Your task to perform on an android device: Go to calendar. Show me events next week Image 0: 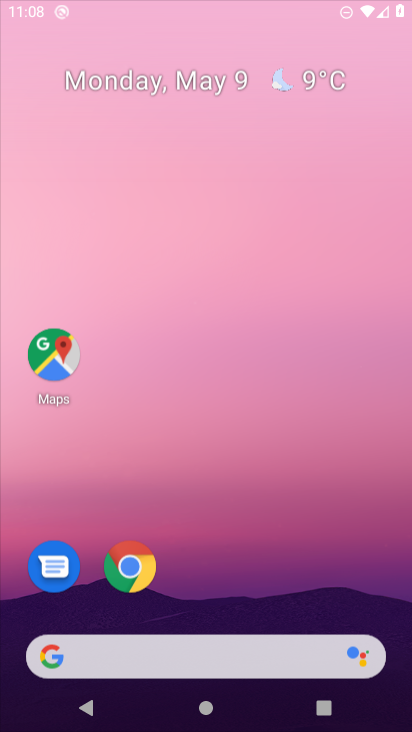
Step 0: click (228, 28)
Your task to perform on an android device: Go to calendar. Show me events next week Image 1: 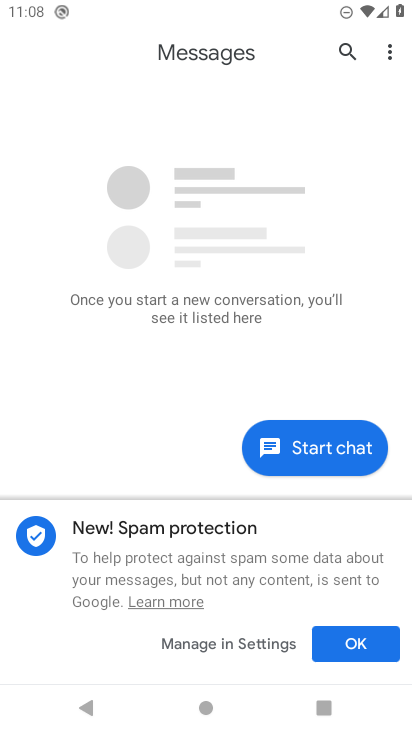
Step 1: press home button
Your task to perform on an android device: Go to calendar. Show me events next week Image 2: 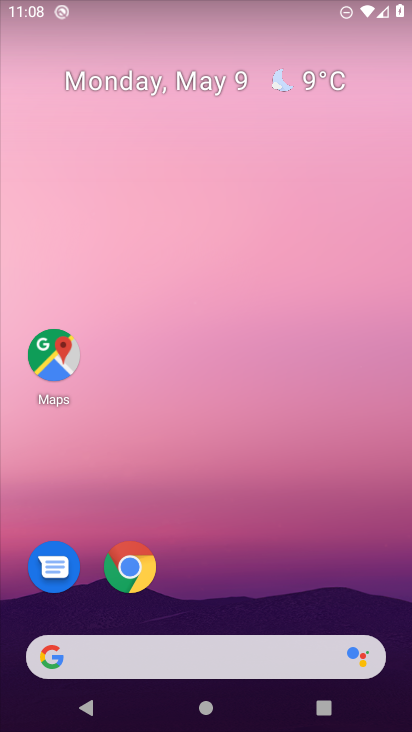
Step 2: drag from (217, 605) to (216, 83)
Your task to perform on an android device: Go to calendar. Show me events next week Image 3: 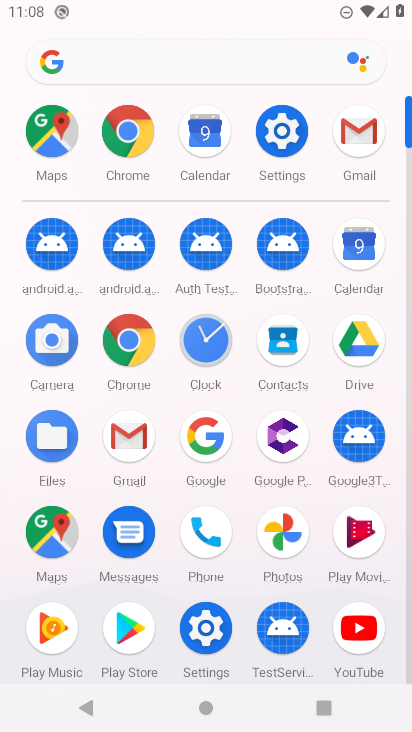
Step 3: click (357, 242)
Your task to perform on an android device: Go to calendar. Show me events next week Image 4: 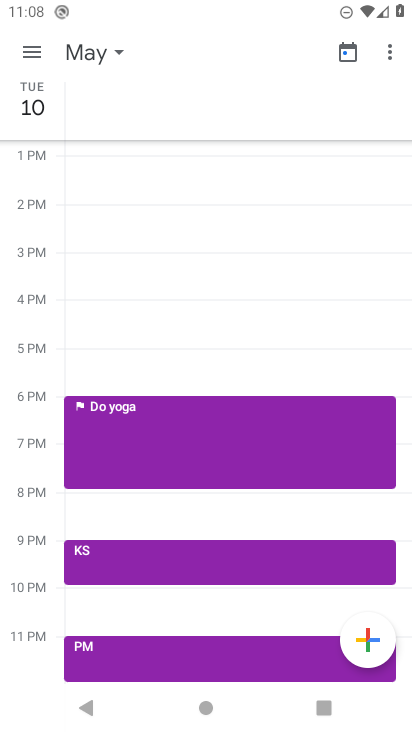
Step 4: click (27, 49)
Your task to perform on an android device: Go to calendar. Show me events next week Image 5: 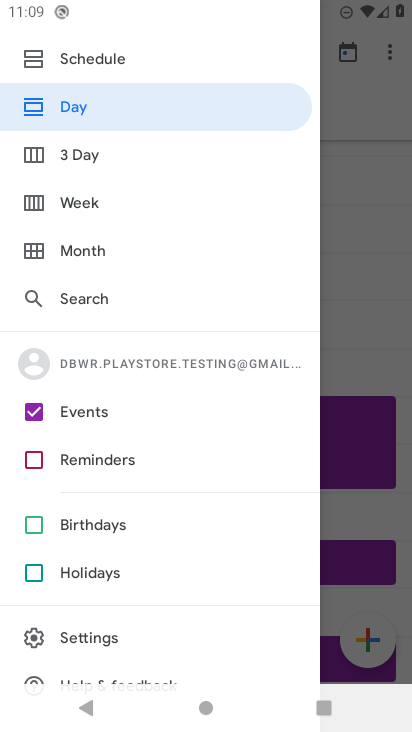
Step 5: drag from (102, 151) to (128, 546)
Your task to perform on an android device: Go to calendar. Show me events next week Image 6: 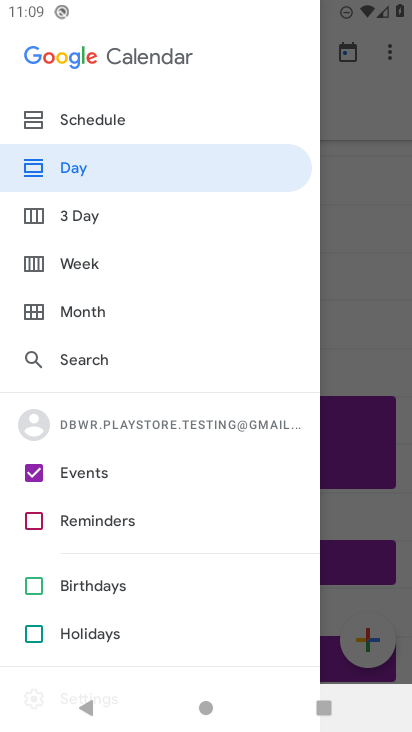
Step 6: click (51, 261)
Your task to perform on an android device: Go to calendar. Show me events next week Image 7: 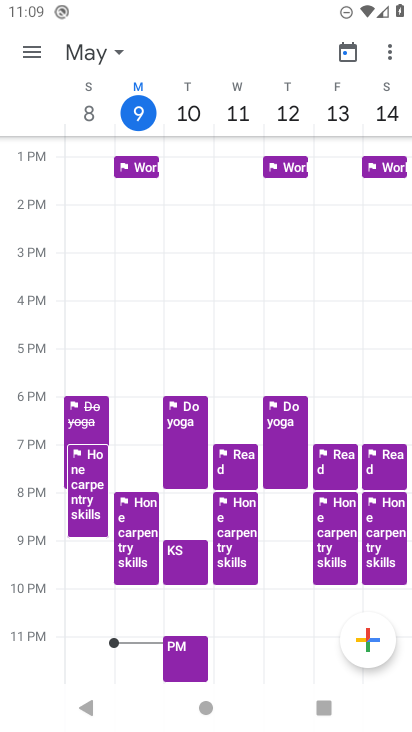
Step 7: drag from (392, 109) to (118, 116)
Your task to perform on an android device: Go to calendar. Show me events next week Image 8: 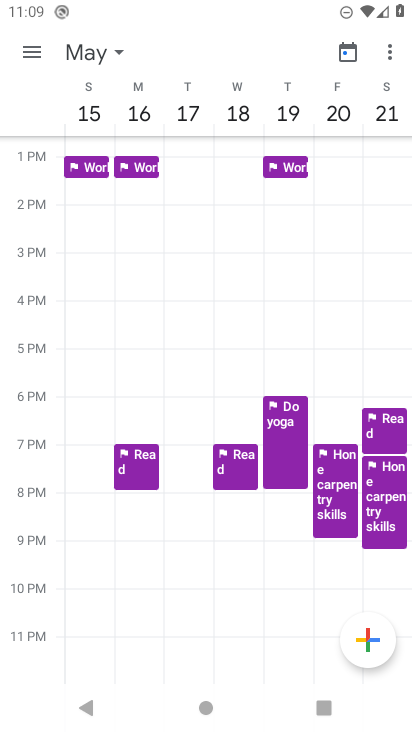
Step 8: click (87, 111)
Your task to perform on an android device: Go to calendar. Show me events next week Image 9: 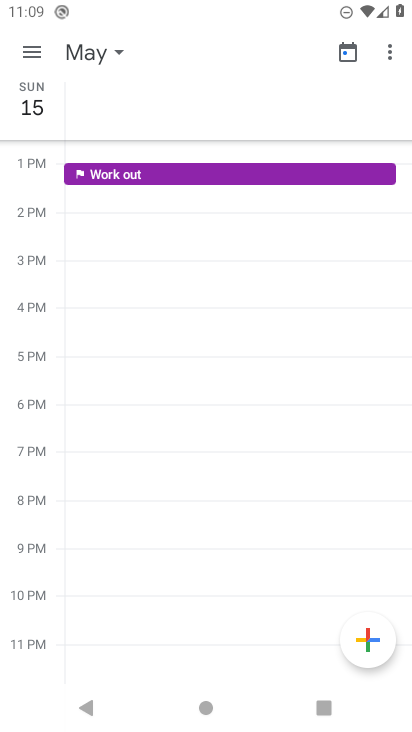
Step 9: click (44, 119)
Your task to perform on an android device: Go to calendar. Show me events next week Image 10: 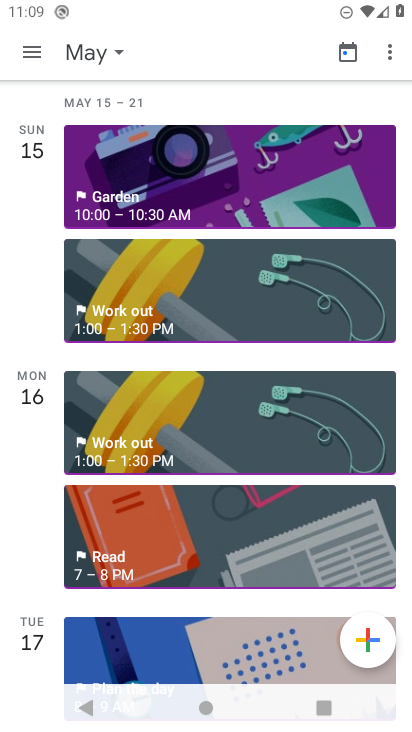
Step 10: task complete